Your task to perform on an android device: turn on airplane mode Image 0: 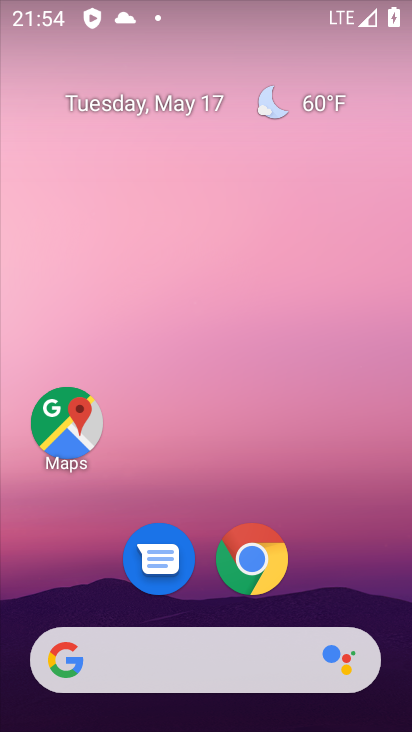
Step 0: drag from (228, 32) to (280, 507)
Your task to perform on an android device: turn on airplane mode Image 1: 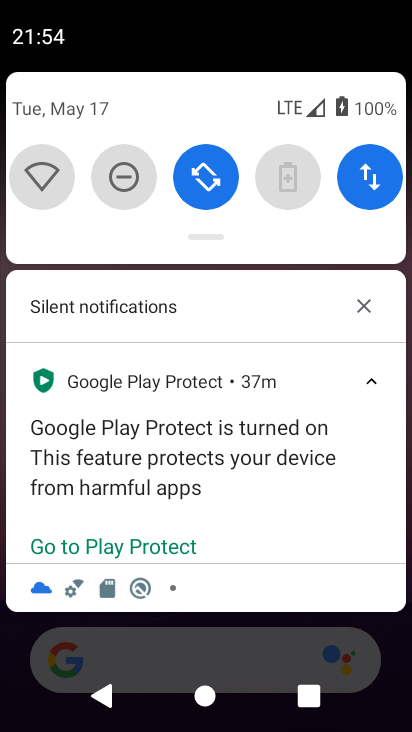
Step 1: drag from (282, 232) to (230, 600)
Your task to perform on an android device: turn on airplane mode Image 2: 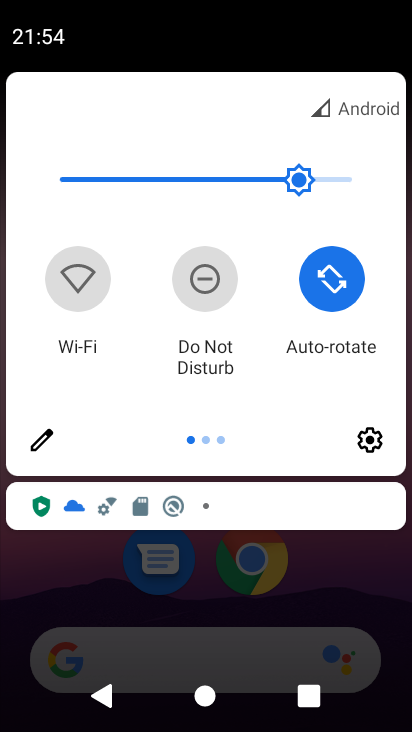
Step 2: drag from (366, 303) to (5, 314)
Your task to perform on an android device: turn on airplane mode Image 3: 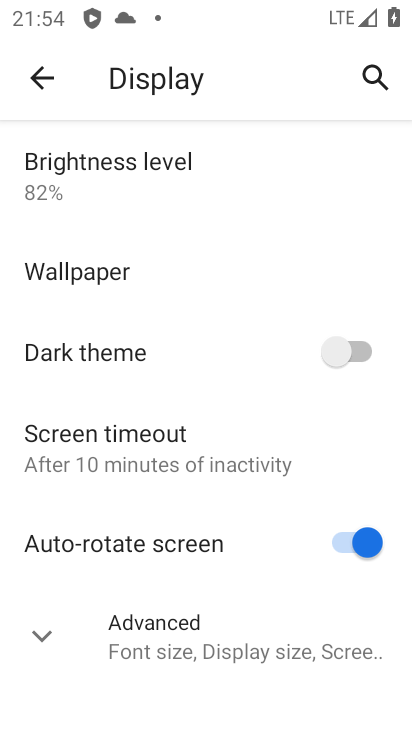
Step 3: click (37, 82)
Your task to perform on an android device: turn on airplane mode Image 4: 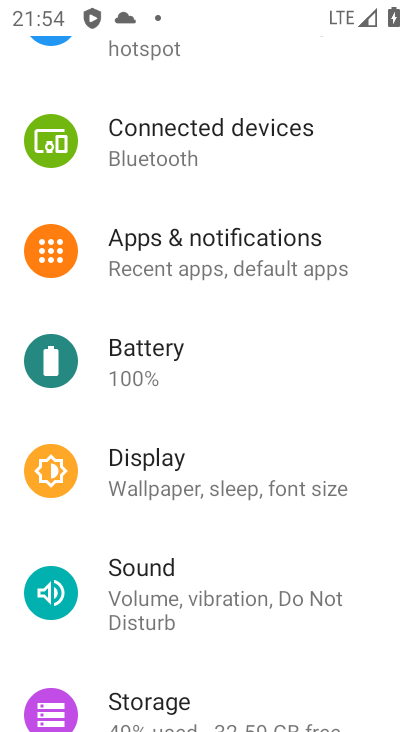
Step 4: drag from (207, 119) to (219, 510)
Your task to perform on an android device: turn on airplane mode Image 5: 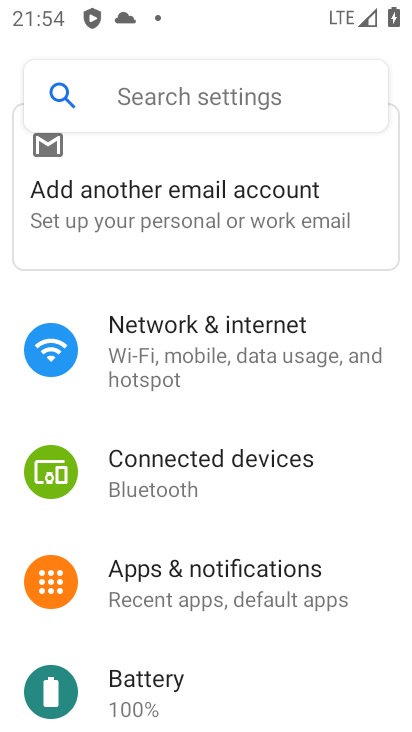
Step 5: click (219, 331)
Your task to perform on an android device: turn on airplane mode Image 6: 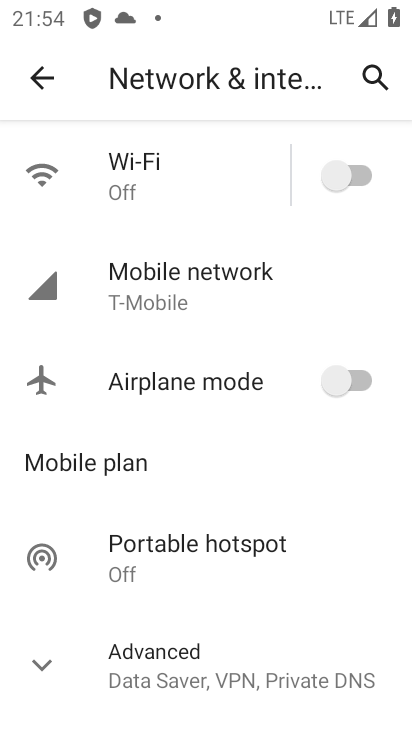
Step 6: click (352, 379)
Your task to perform on an android device: turn on airplane mode Image 7: 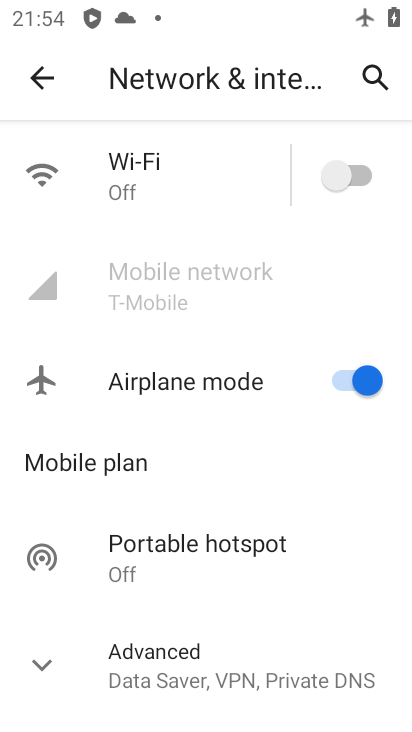
Step 7: task complete